Your task to perform on an android device: Open Wikipedia Image 0: 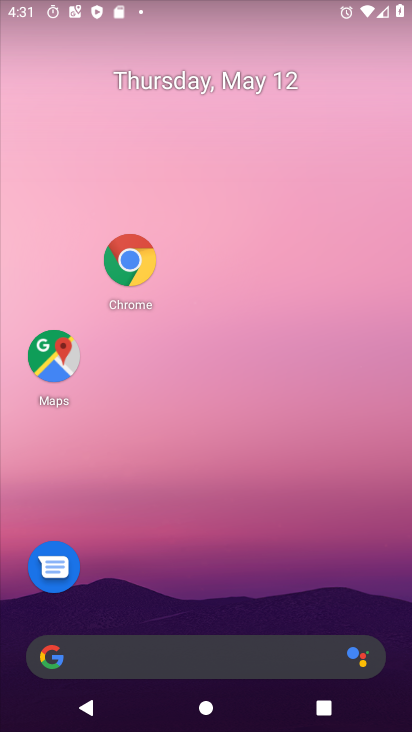
Step 0: click (130, 255)
Your task to perform on an android device: Open Wikipedia Image 1: 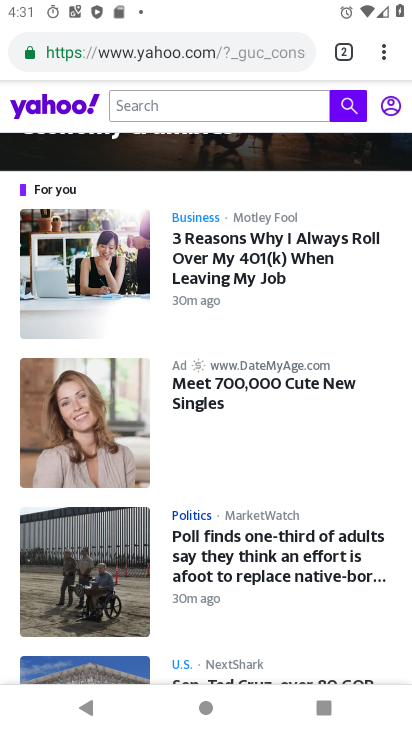
Step 1: press home button
Your task to perform on an android device: Open Wikipedia Image 2: 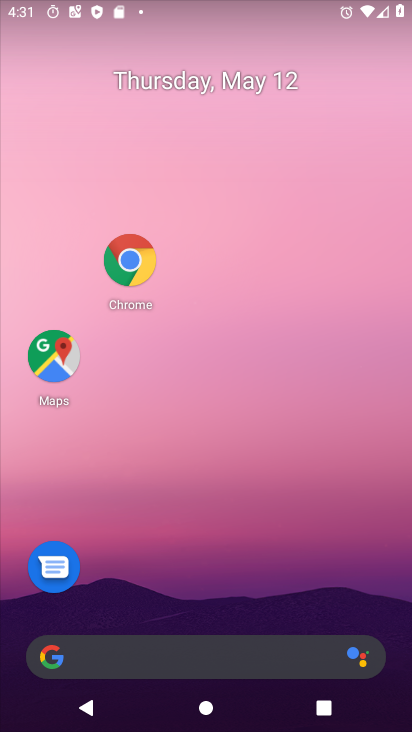
Step 2: drag from (217, 641) to (212, 225)
Your task to perform on an android device: Open Wikipedia Image 3: 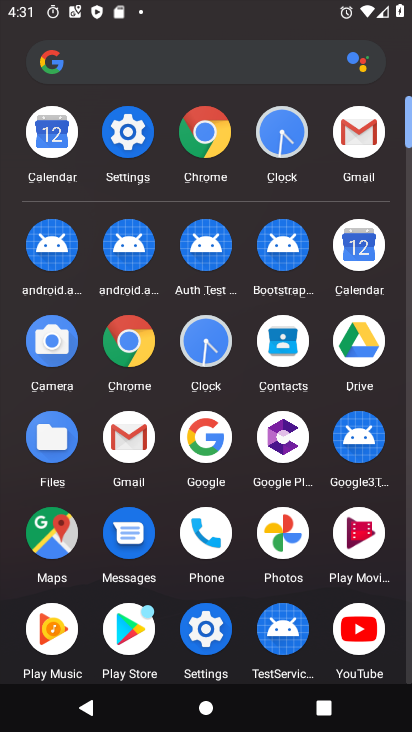
Step 3: click (214, 122)
Your task to perform on an android device: Open Wikipedia Image 4: 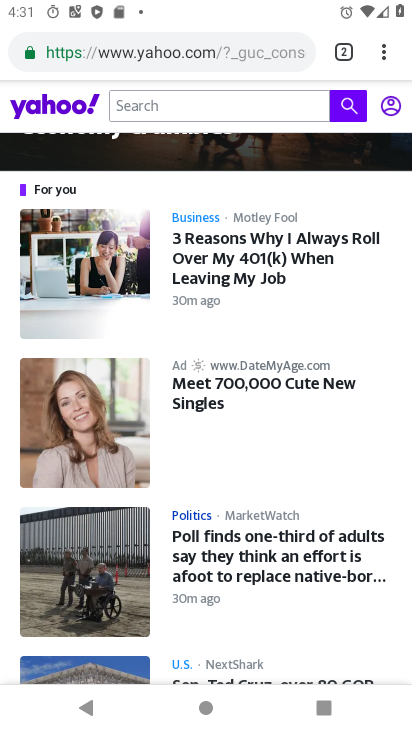
Step 4: click (341, 54)
Your task to perform on an android device: Open Wikipedia Image 5: 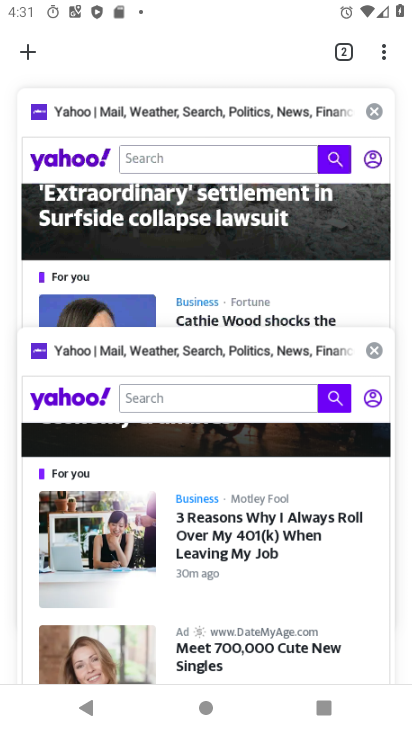
Step 5: click (367, 113)
Your task to perform on an android device: Open Wikipedia Image 6: 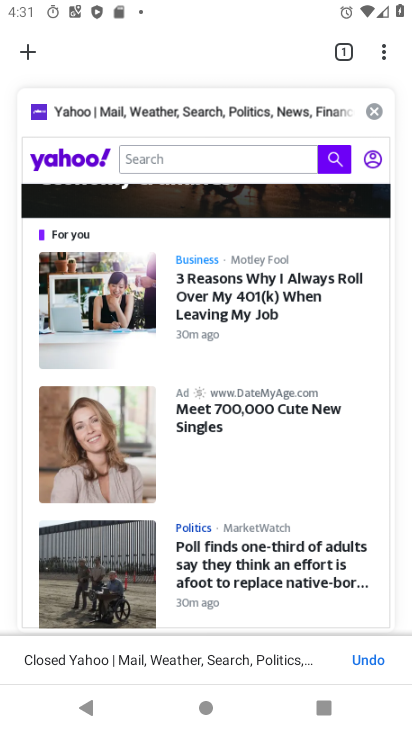
Step 6: click (367, 113)
Your task to perform on an android device: Open Wikipedia Image 7: 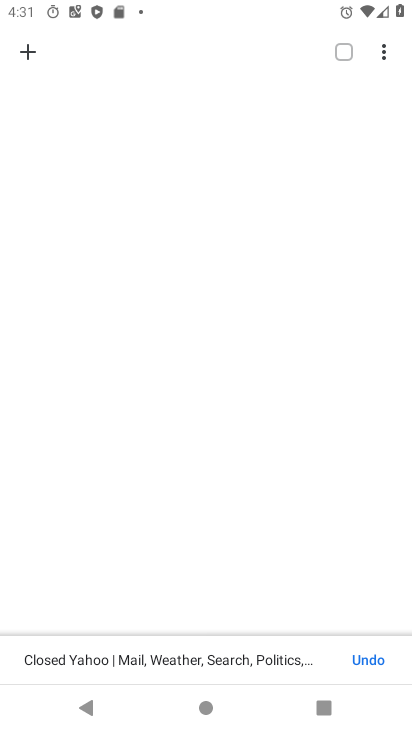
Step 7: click (20, 49)
Your task to perform on an android device: Open Wikipedia Image 8: 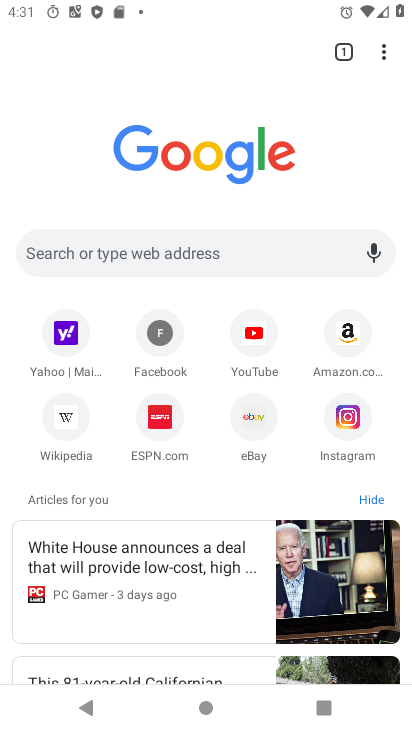
Step 8: click (68, 427)
Your task to perform on an android device: Open Wikipedia Image 9: 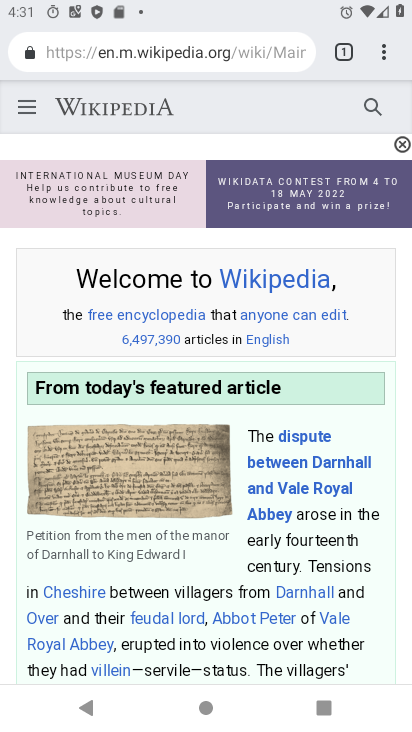
Step 9: task complete